Your task to perform on an android device: Go to battery settings Image 0: 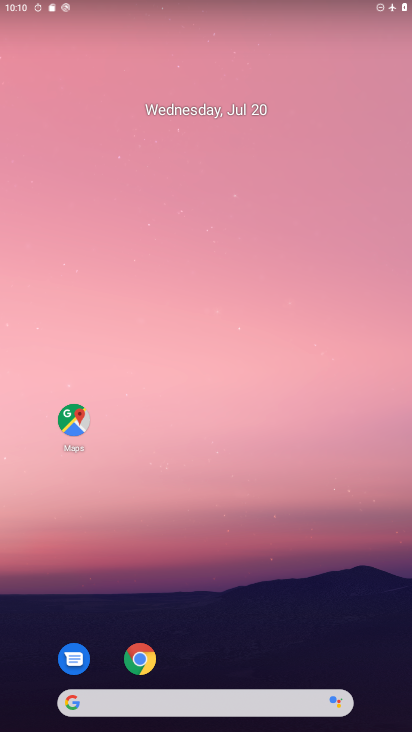
Step 0: drag from (225, 586) to (242, 131)
Your task to perform on an android device: Go to battery settings Image 1: 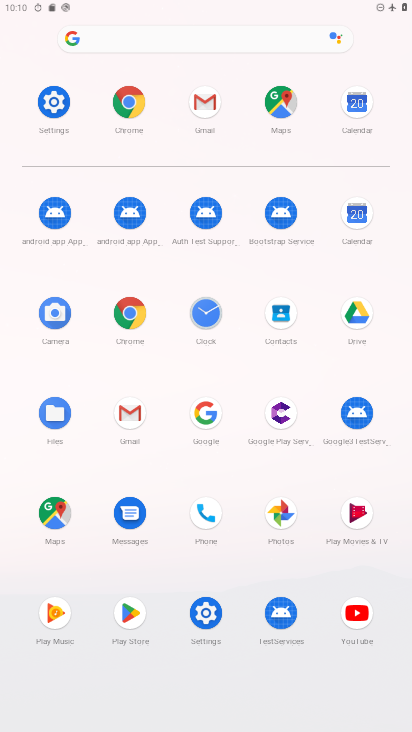
Step 1: click (56, 95)
Your task to perform on an android device: Go to battery settings Image 2: 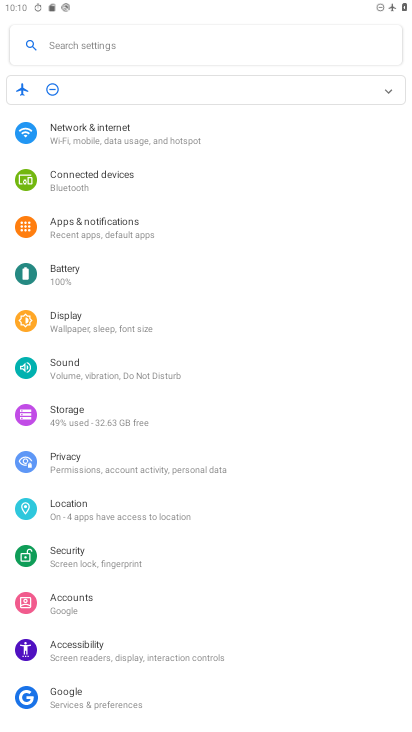
Step 2: click (61, 270)
Your task to perform on an android device: Go to battery settings Image 3: 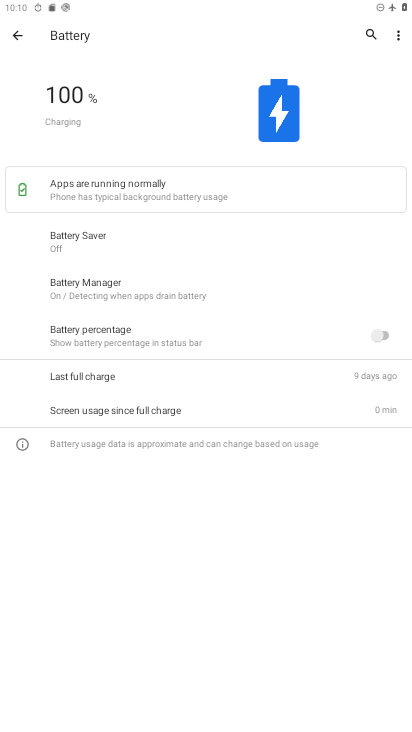
Step 3: task complete